Your task to perform on an android device: clear all cookies in the chrome app Image 0: 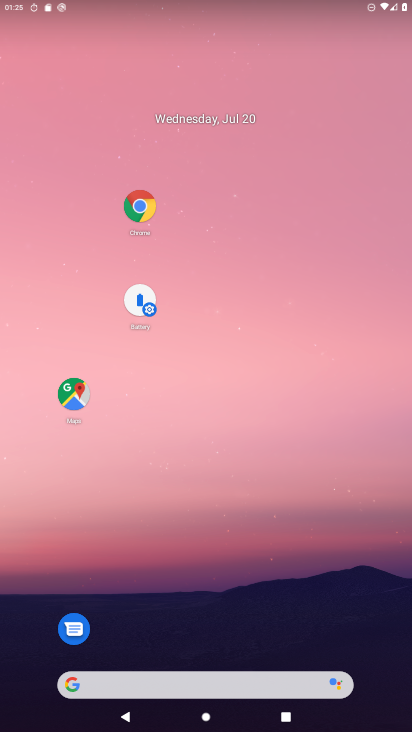
Step 0: drag from (210, 546) to (237, 230)
Your task to perform on an android device: clear all cookies in the chrome app Image 1: 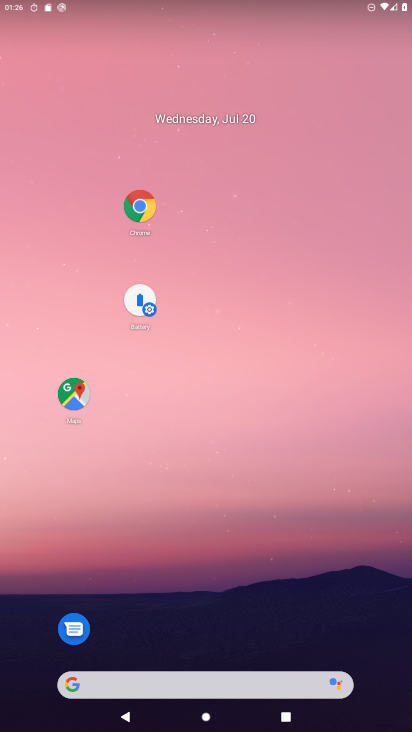
Step 1: drag from (137, 647) to (266, 232)
Your task to perform on an android device: clear all cookies in the chrome app Image 2: 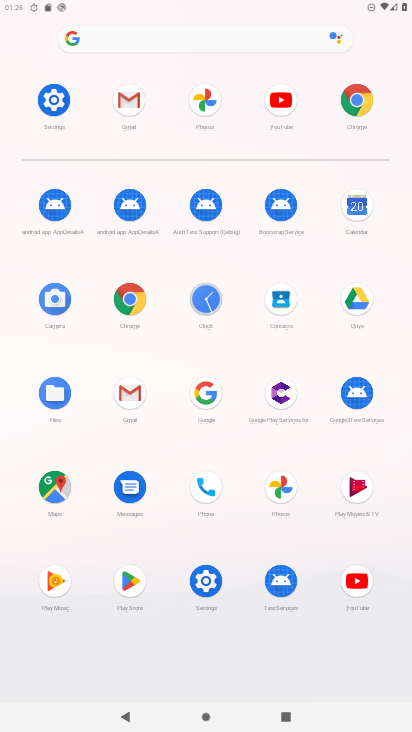
Step 2: click (127, 295)
Your task to perform on an android device: clear all cookies in the chrome app Image 3: 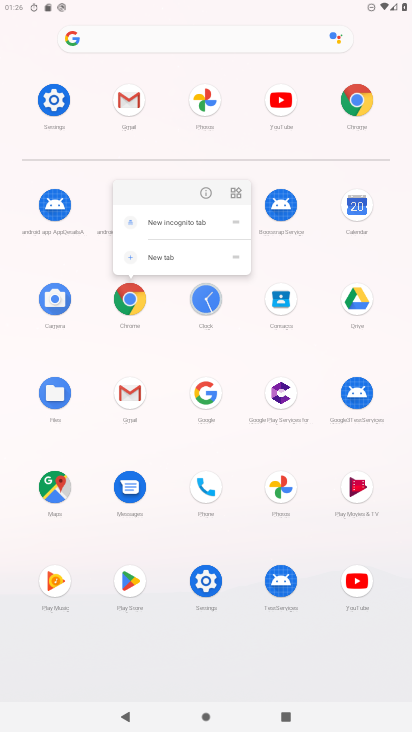
Step 3: click (203, 194)
Your task to perform on an android device: clear all cookies in the chrome app Image 4: 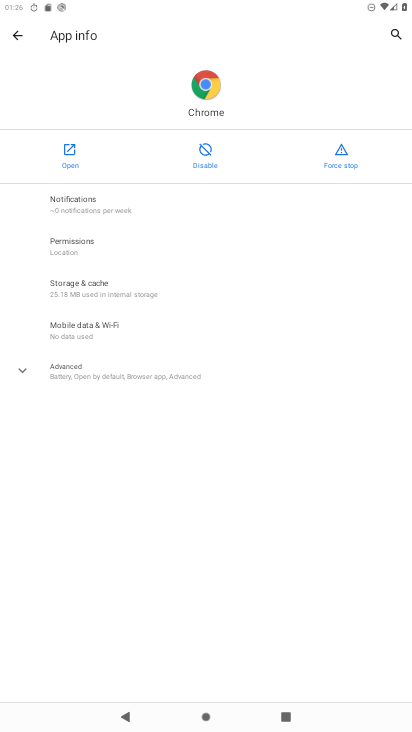
Step 4: click (76, 147)
Your task to perform on an android device: clear all cookies in the chrome app Image 5: 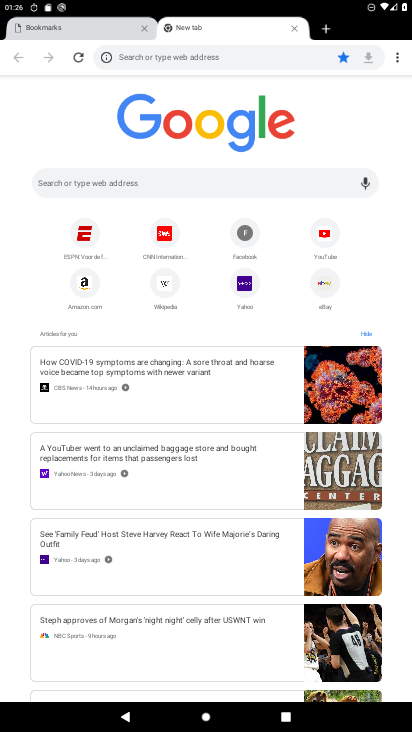
Step 5: drag from (397, 59) to (317, 172)
Your task to perform on an android device: clear all cookies in the chrome app Image 6: 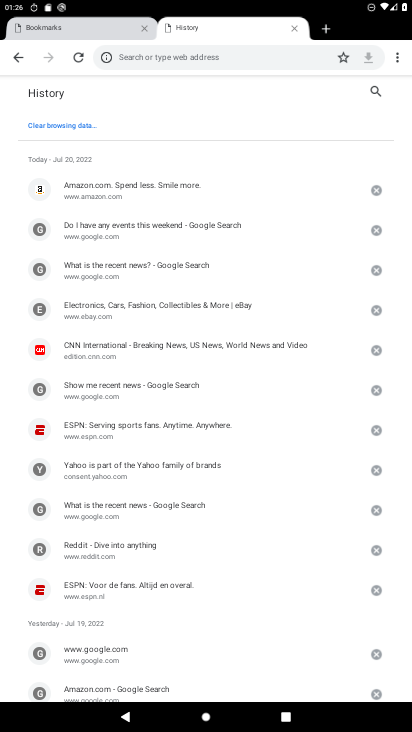
Step 6: click (32, 125)
Your task to perform on an android device: clear all cookies in the chrome app Image 7: 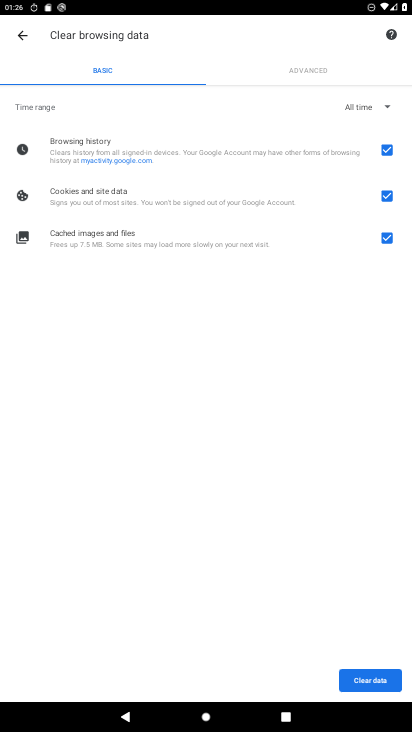
Step 7: click (381, 149)
Your task to perform on an android device: clear all cookies in the chrome app Image 8: 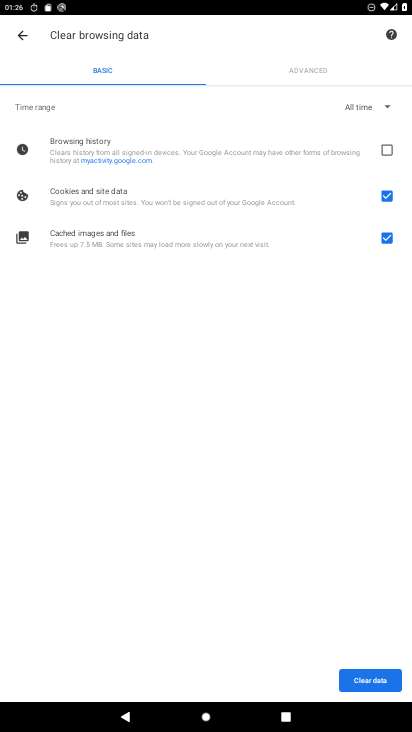
Step 8: click (387, 231)
Your task to perform on an android device: clear all cookies in the chrome app Image 9: 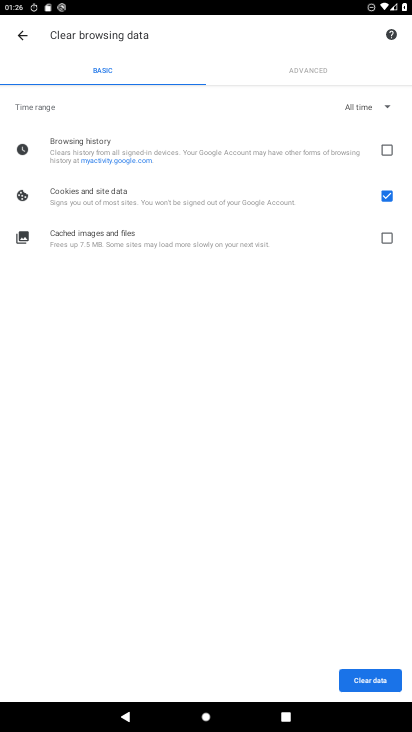
Step 9: click (360, 680)
Your task to perform on an android device: clear all cookies in the chrome app Image 10: 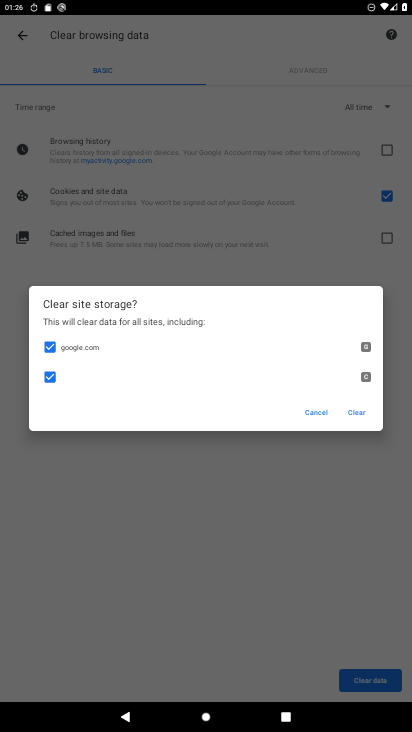
Step 10: click (353, 409)
Your task to perform on an android device: clear all cookies in the chrome app Image 11: 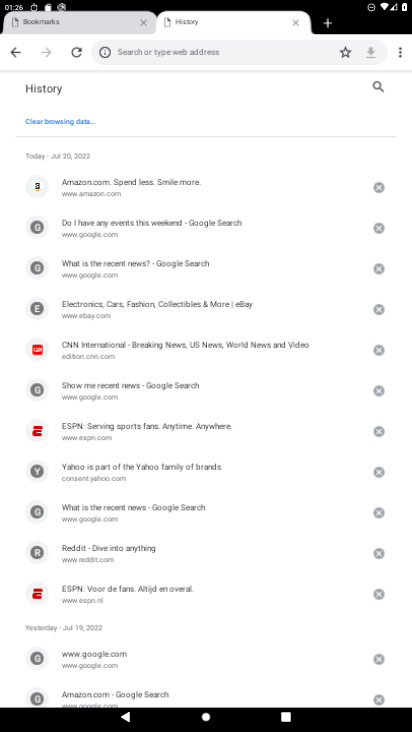
Step 11: task complete